Your task to perform on an android device: Open internet settings Image 0: 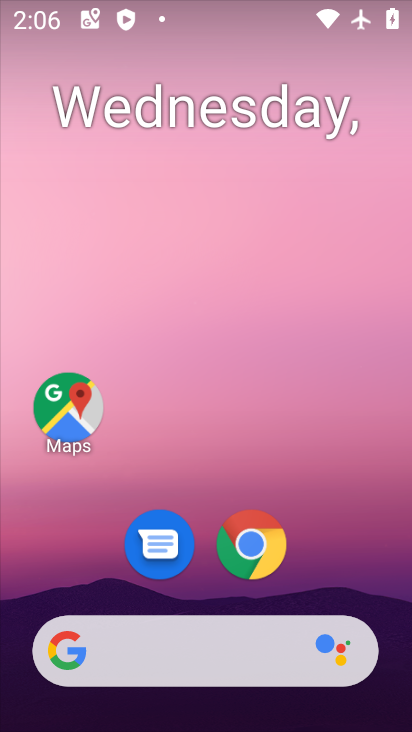
Step 0: drag from (347, 554) to (348, 65)
Your task to perform on an android device: Open internet settings Image 1: 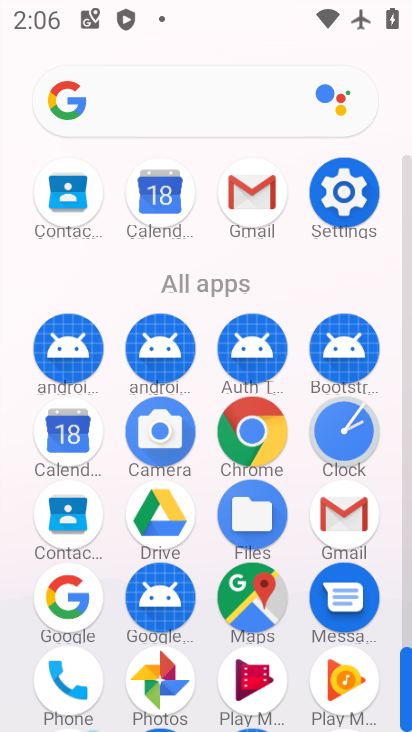
Step 1: click (355, 192)
Your task to perform on an android device: Open internet settings Image 2: 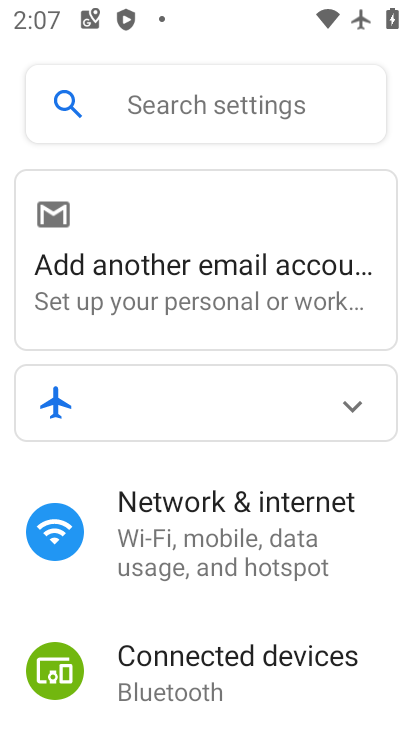
Step 2: click (206, 565)
Your task to perform on an android device: Open internet settings Image 3: 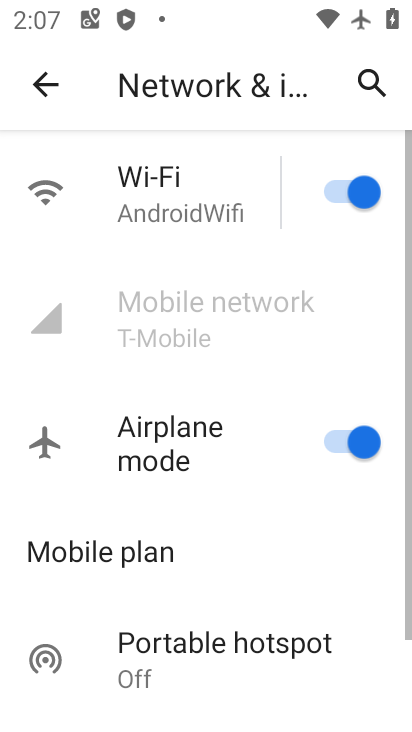
Step 3: task complete